Your task to perform on an android device: turn on notifications settings in the gmail app Image 0: 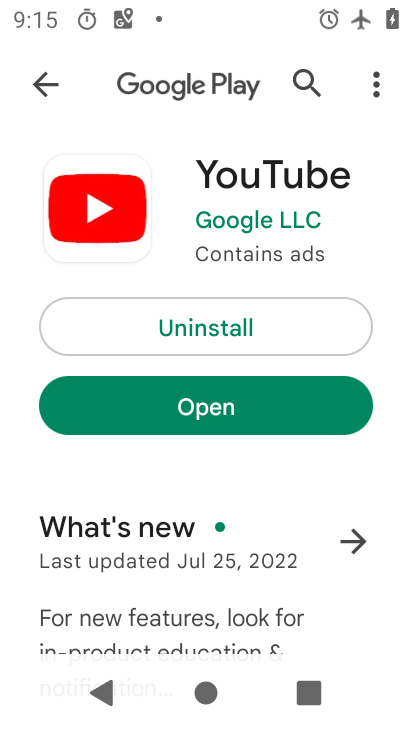
Step 0: press home button
Your task to perform on an android device: turn on notifications settings in the gmail app Image 1: 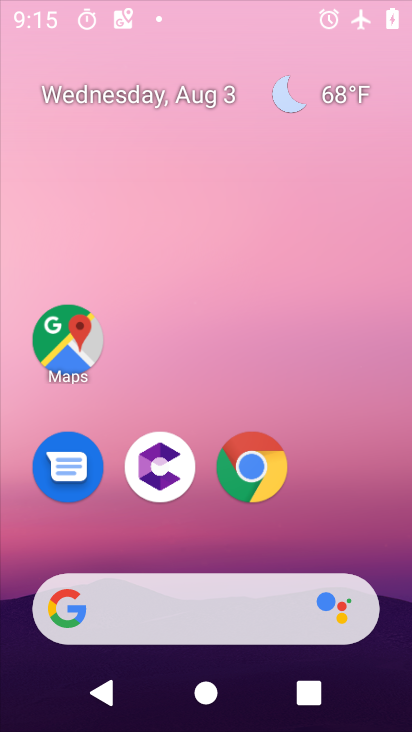
Step 1: press home button
Your task to perform on an android device: turn on notifications settings in the gmail app Image 2: 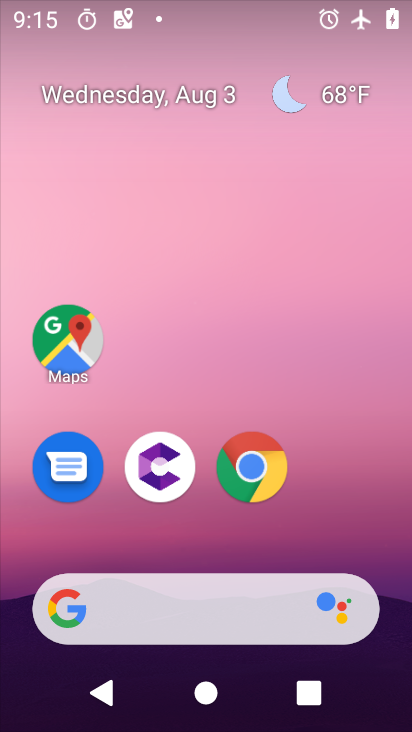
Step 2: drag from (354, 432) to (386, 37)
Your task to perform on an android device: turn on notifications settings in the gmail app Image 3: 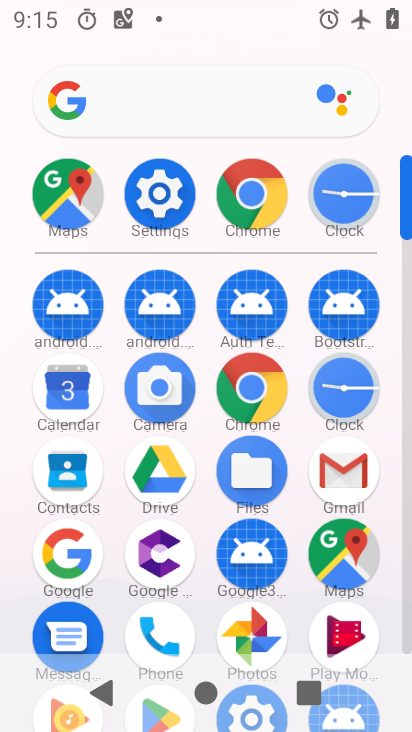
Step 3: click (341, 468)
Your task to perform on an android device: turn on notifications settings in the gmail app Image 4: 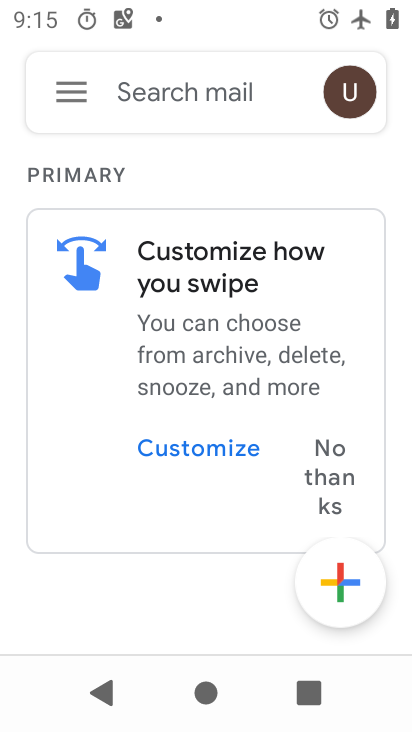
Step 4: click (62, 88)
Your task to perform on an android device: turn on notifications settings in the gmail app Image 5: 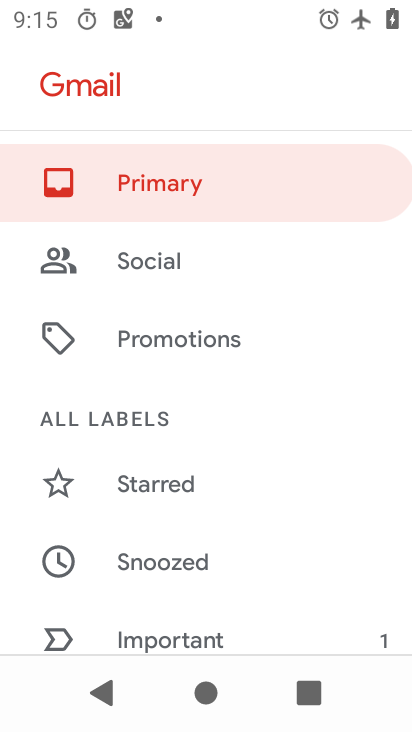
Step 5: drag from (224, 590) to (305, 202)
Your task to perform on an android device: turn on notifications settings in the gmail app Image 6: 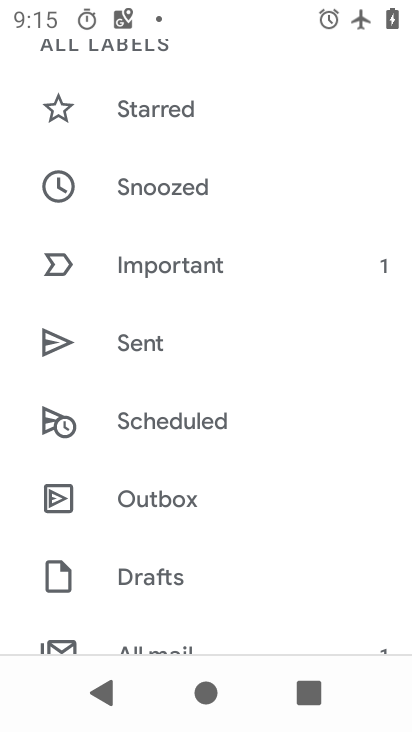
Step 6: drag from (249, 571) to (226, 143)
Your task to perform on an android device: turn on notifications settings in the gmail app Image 7: 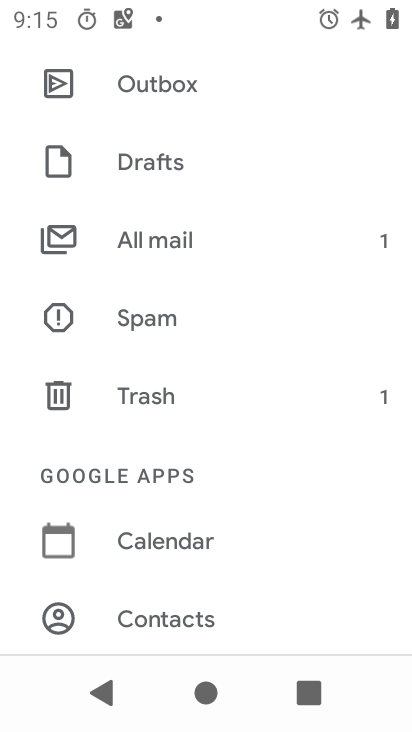
Step 7: drag from (306, 603) to (295, 225)
Your task to perform on an android device: turn on notifications settings in the gmail app Image 8: 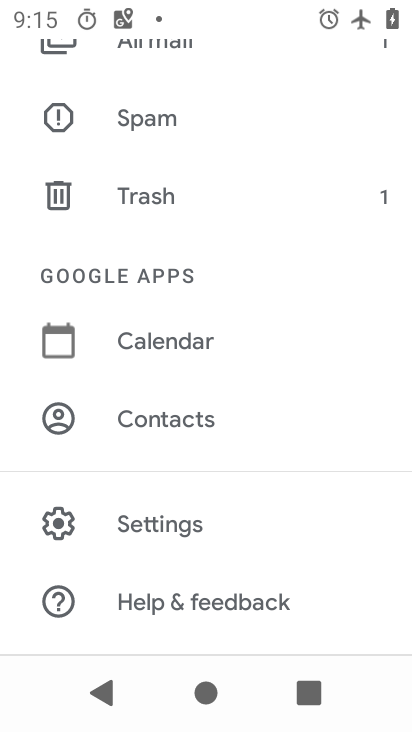
Step 8: click (172, 530)
Your task to perform on an android device: turn on notifications settings in the gmail app Image 9: 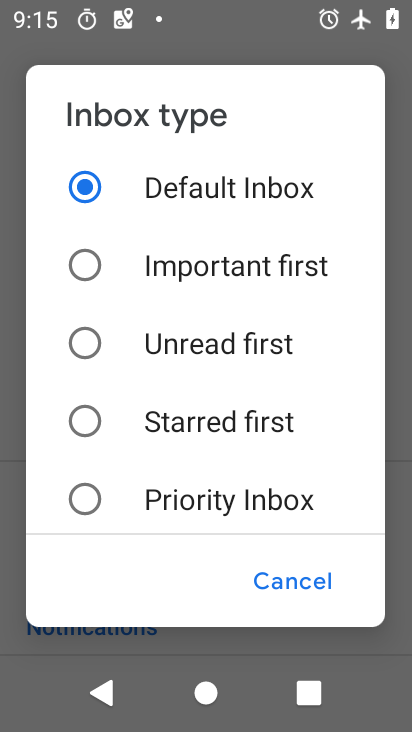
Step 9: click (294, 579)
Your task to perform on an android device: turn on notifications settings in the gmail app Image 10: 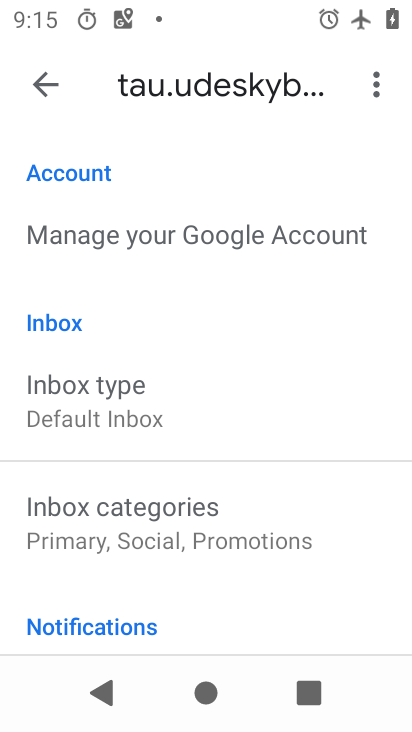
Step 10: drag from (288, 494) to (303, 294)
Your task to perform on an android device: turn on notifications settings in the gmail app Image 11: 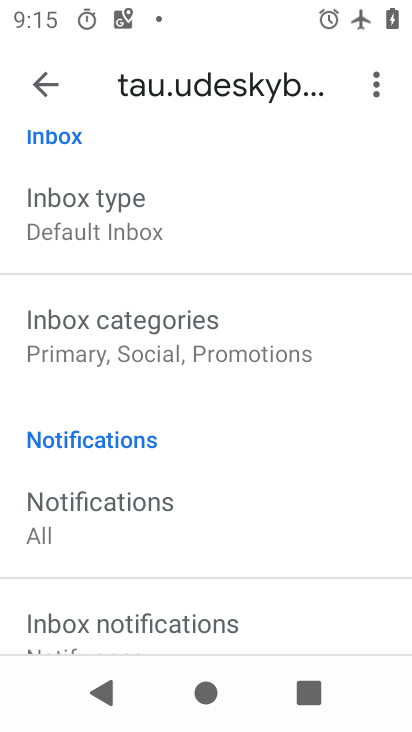
Step 11: drag from (300, 565) to (352, 278)
Your task to perform on an android device: turn on notifications settings in the gmail app Image 12: 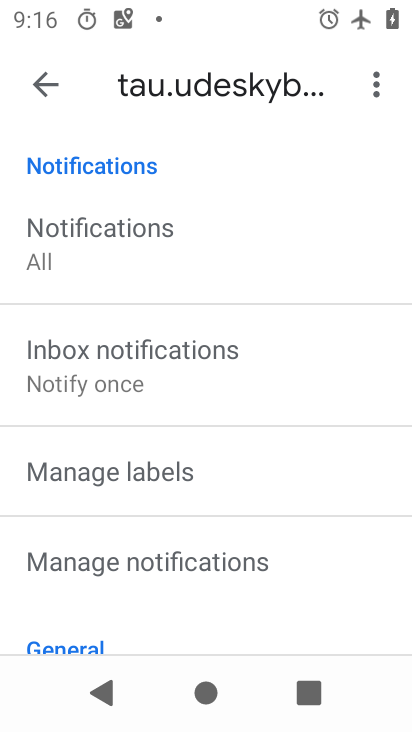
Step 12: click (216, 562)
Your task to perform on an android device: turn on notifications settings in the gmail app Image 13: 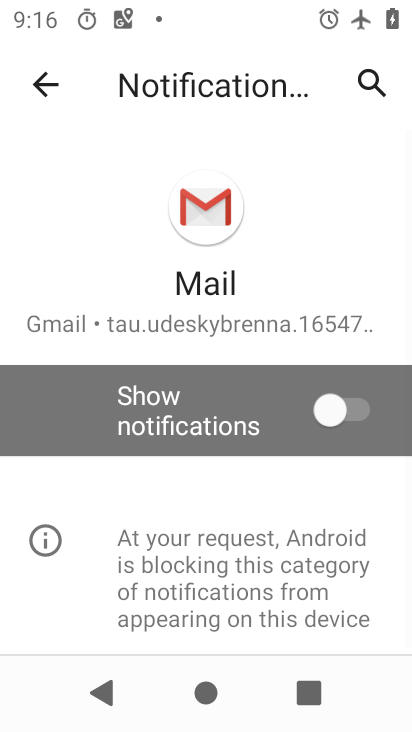
Step 13: click (333, 378)
Your task to perform on an android device: turn on notifications settings in the gmail app Image 14: 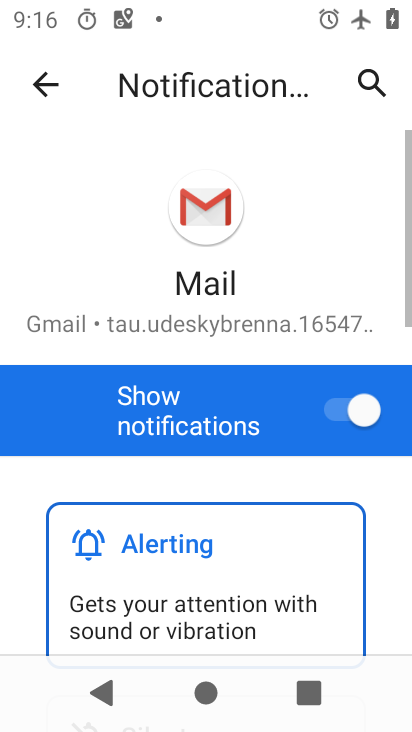
Step 14: task complete